Your task to perform on an android device: Go to privacy settings Image 0: 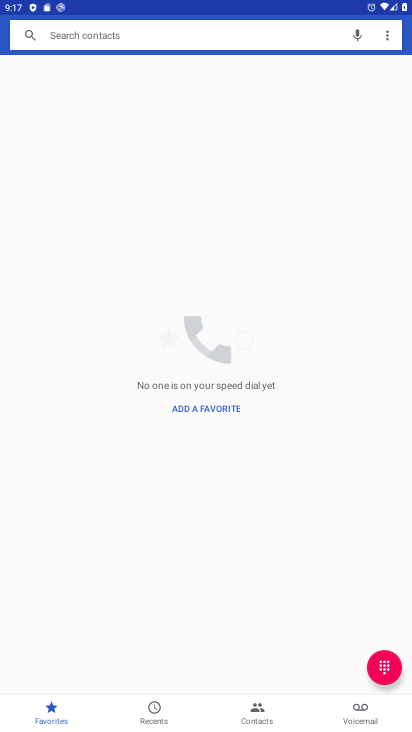
Step 0: press home button
Your task to perform on an android device: Go to privacy settings Image 1: 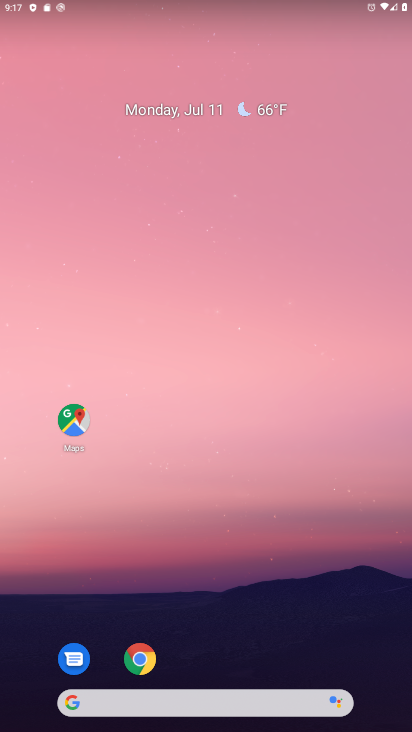
Step 1: drag from (359, 618) to (355, 126)
Your task to perform on an android device: Go to privacy settings Image 2: 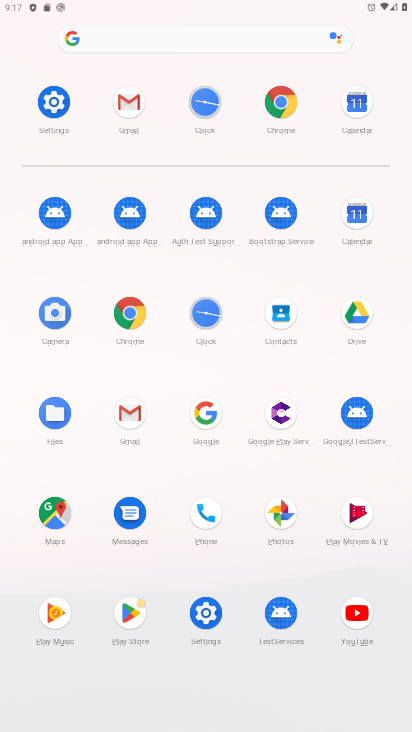
Step 2: click (206, 613)
Your task to perform on an android device: Go to privacy settings Image 3: 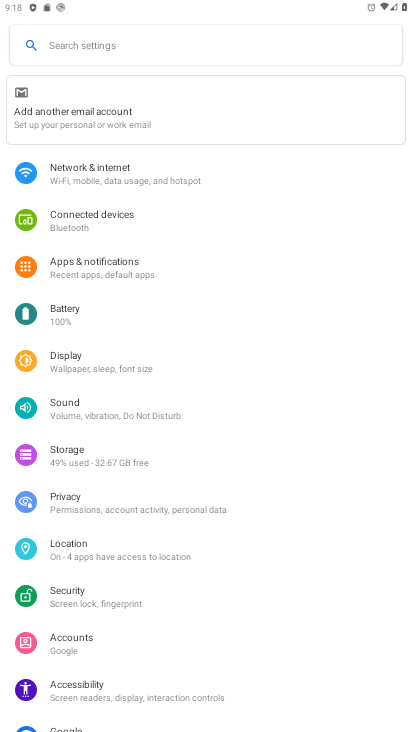
Step 3: drag from (301, 525) to (307, 395)
Your task to perform on an android device: Go to privacy settings Image 4: 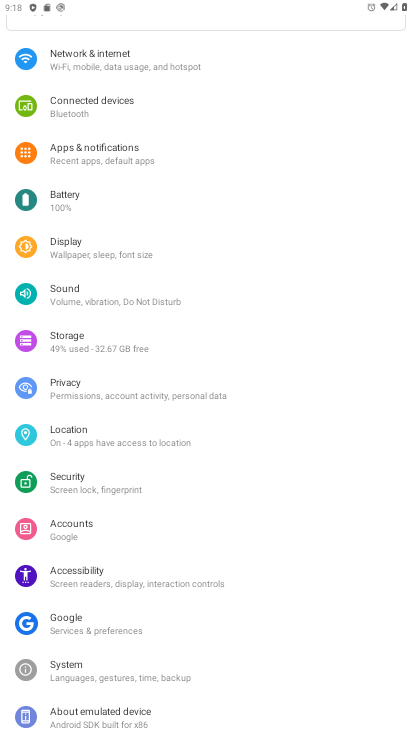
Step 4: drag from (316, 539) to (323, 391)
Your task to perform on an android device: Go to privacy settings Image 5: 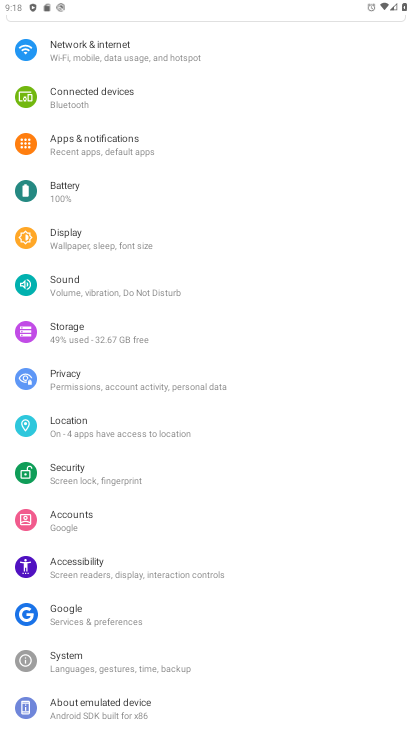
Step 5: click (262, 373)
Your task to perform on an android device: Go to privacy settings Image 6: 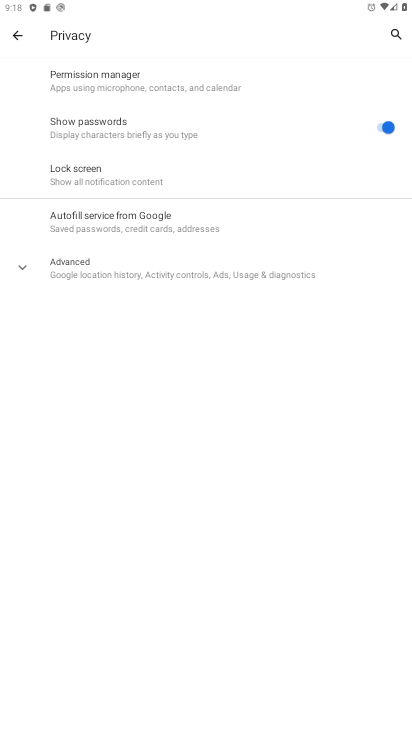
Step 6: task complete